Your task to perform on an android device: delete a single message in the gmail app Image 0: 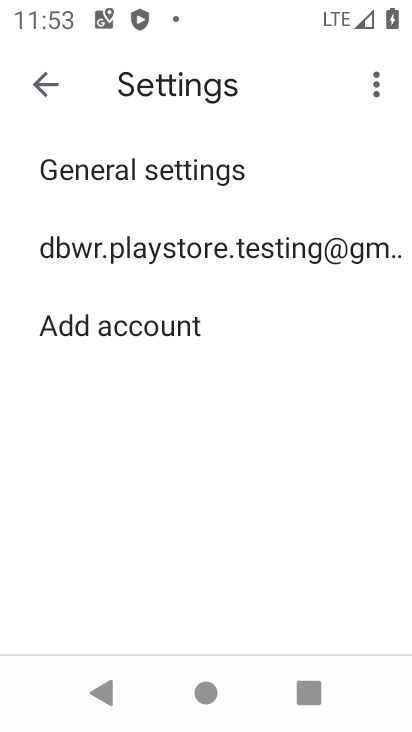
Step 0: press home button
Your task to perform on an android device: delete a single message in the gmail app Image 1: 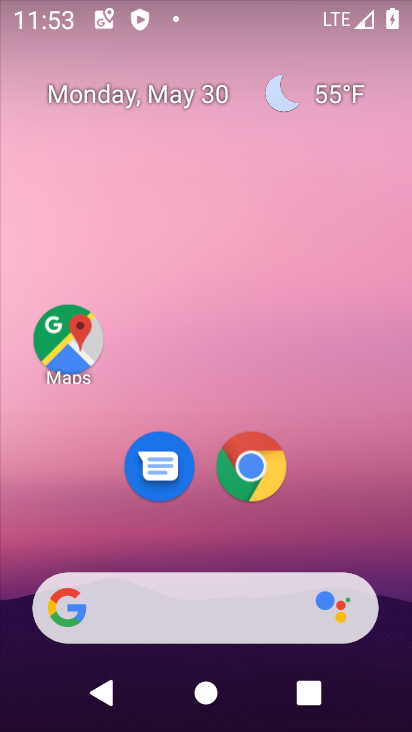
Step 1: drag from (360, 524) to (331, 98)
Your task to perform on an android device: delete a single message in the gmail app Image 2: 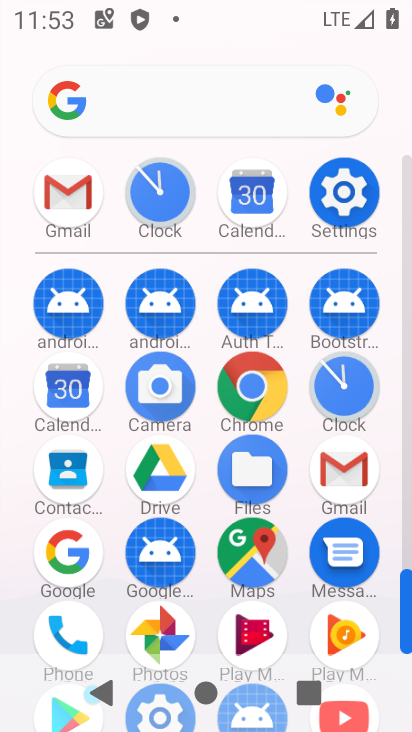
Step 2: click (339, 467)
Your task to perform on an android device: delete a single message in the gmail app Image 3: 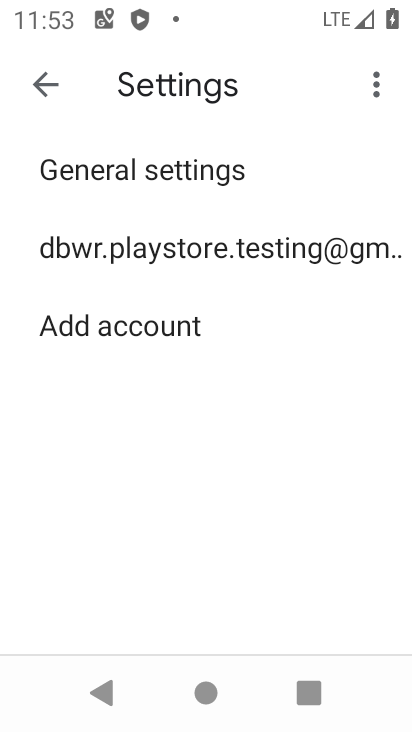
Step 3: click (63, 81)
Your task to perform on an android device: delete a single message in the gmail app Image 4: 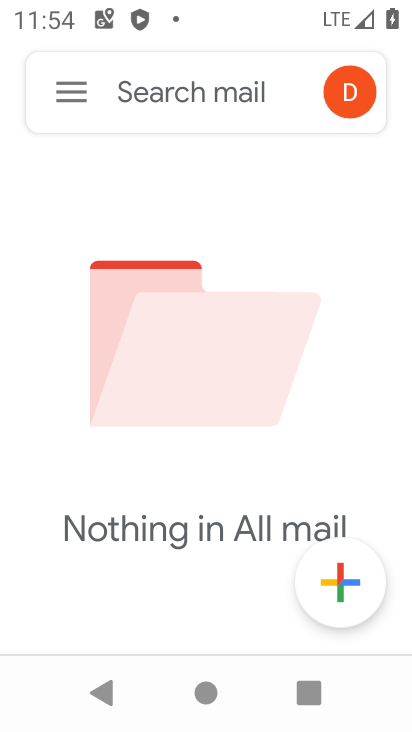
Step 4: task complete